Your task to perform on an android device: refresh tabs in the chrome app Image 0: 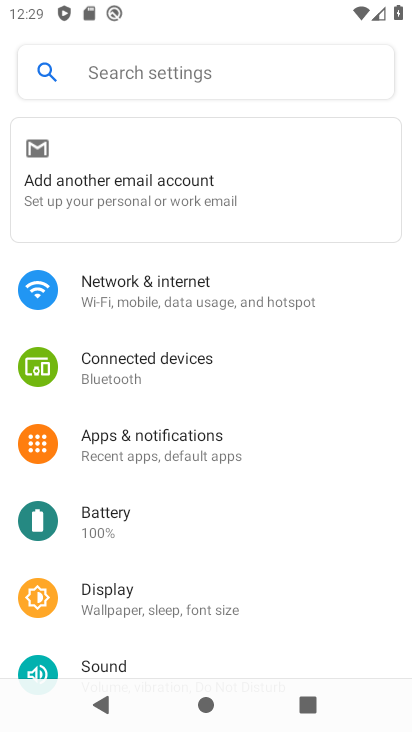
Step 0: press home button
Your task to perform on an android device: refresh tabs in the chrome app Image 1: 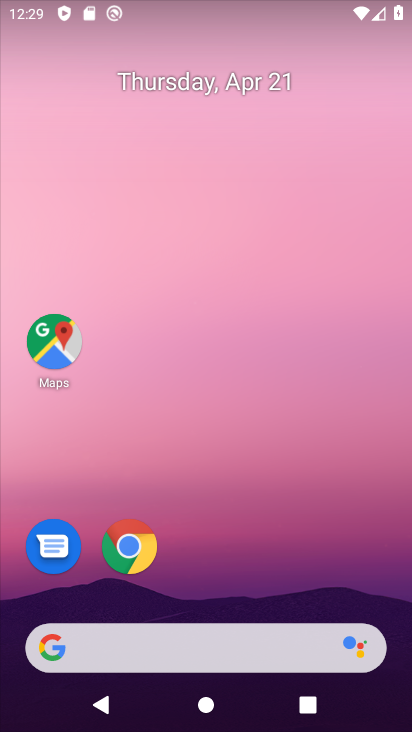
Step 1: click (129, 539)
Your task to perform on an android device: refresh tabs in the chrome app Image 2: 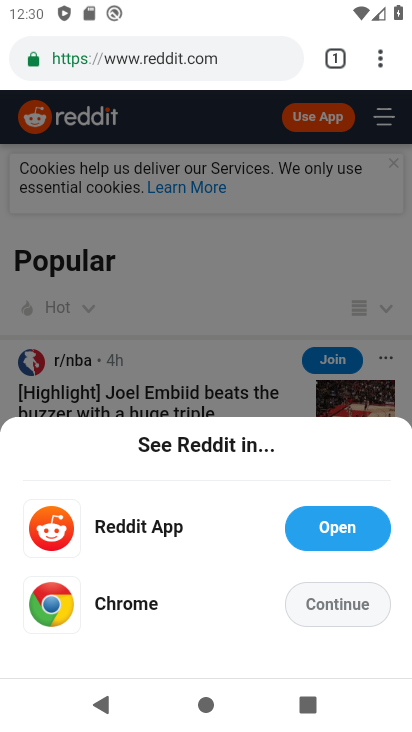
Step 2: click (379, 65)
Your task to perform on an android device: refresh tabs in the chrome app Image 3: 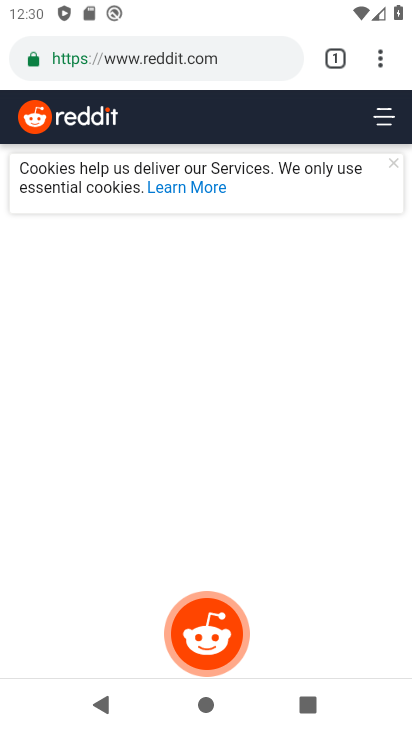
Step 3: task complete